Your task to perform on an android device: Open Amazon Image 0: 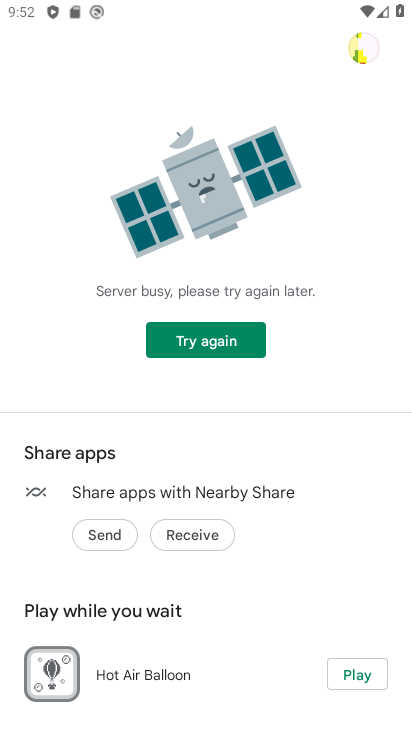
Step 0: press home button
Your task to perform on an android device: Open Amazon Image 1: 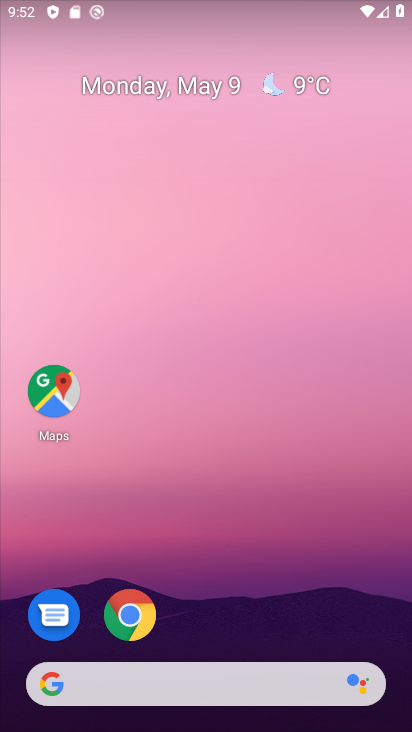
Step 1: click (137, 613)
Your task to perform on an android device: Open Amazon Image 2: 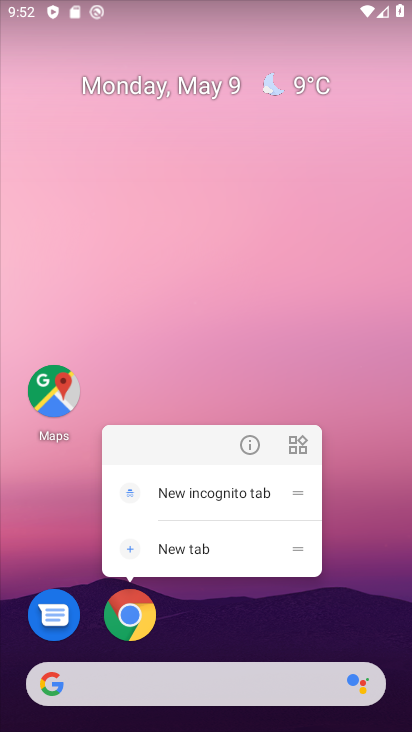
Step 2: click (117, 638)
Your task to perform on an android device: Open Amazon Image 3: 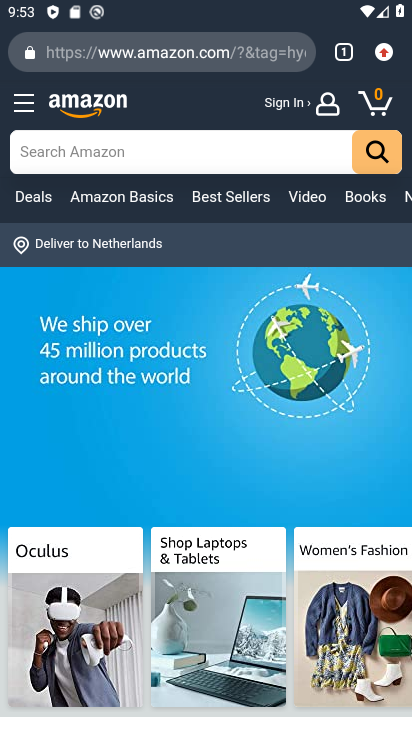
Step 3: task complete